Your task to perform on an android device: Open Maps and search for coffee Image 0: 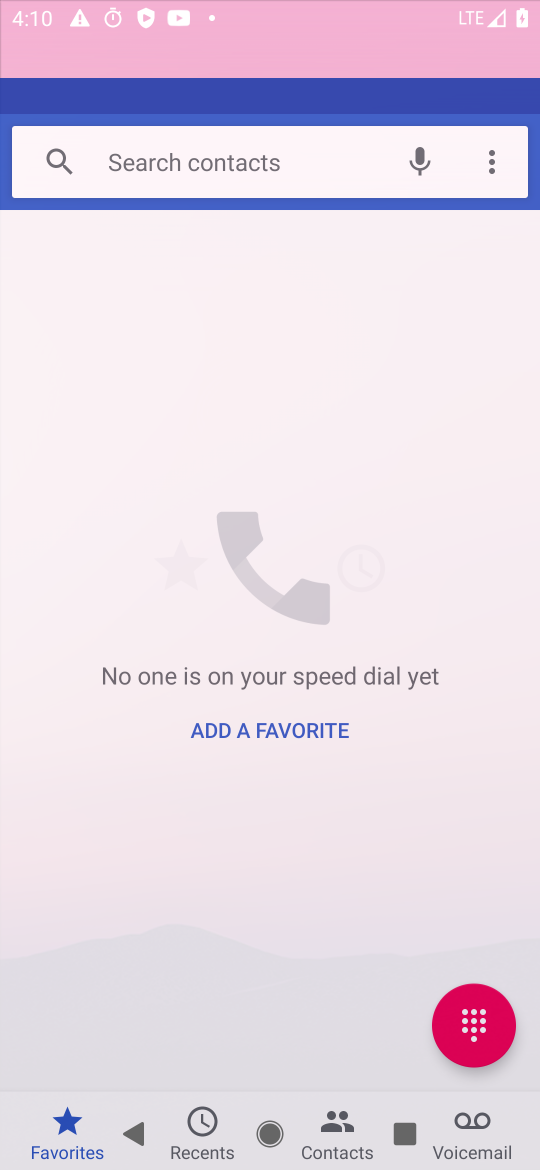
Step 0: press home button
Your task to perform on an android device: Open Maps and search for coffee Image 1: 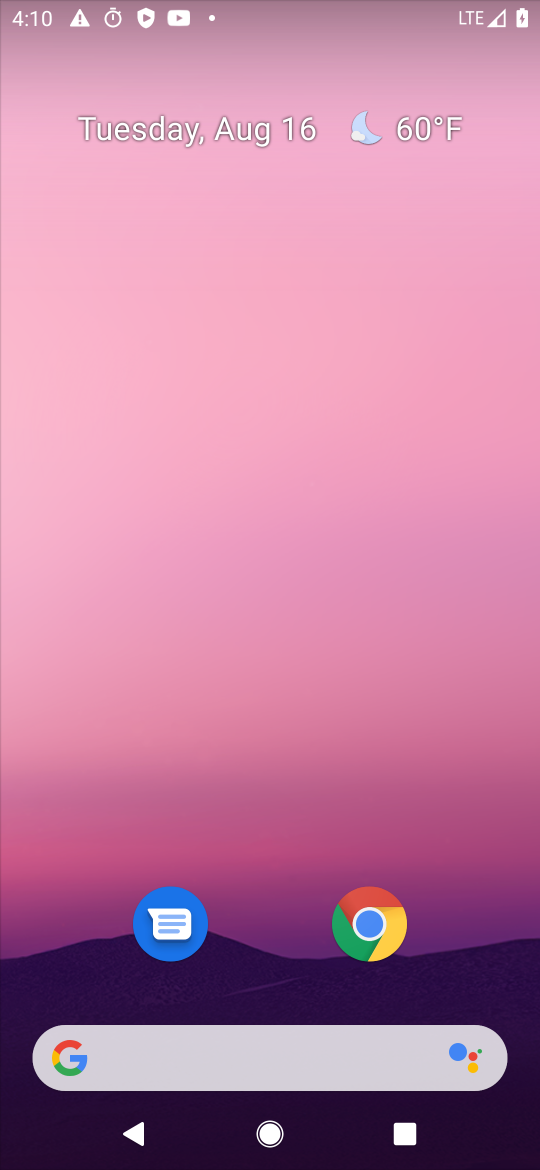
Step 1: drag from (294, 964) to (164, 79)
Your task to perform on an android device: Open Maps and search for coffee Image 2: 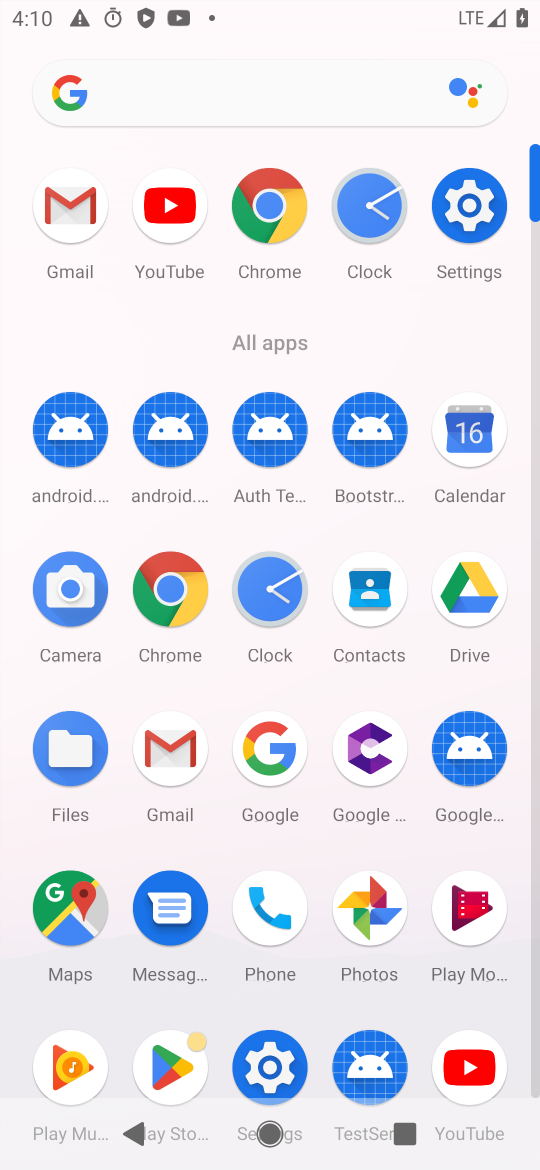
Step 2: click (97, 920)
Your task to perform on an android device: Open Maps and search for coffee Image 3: 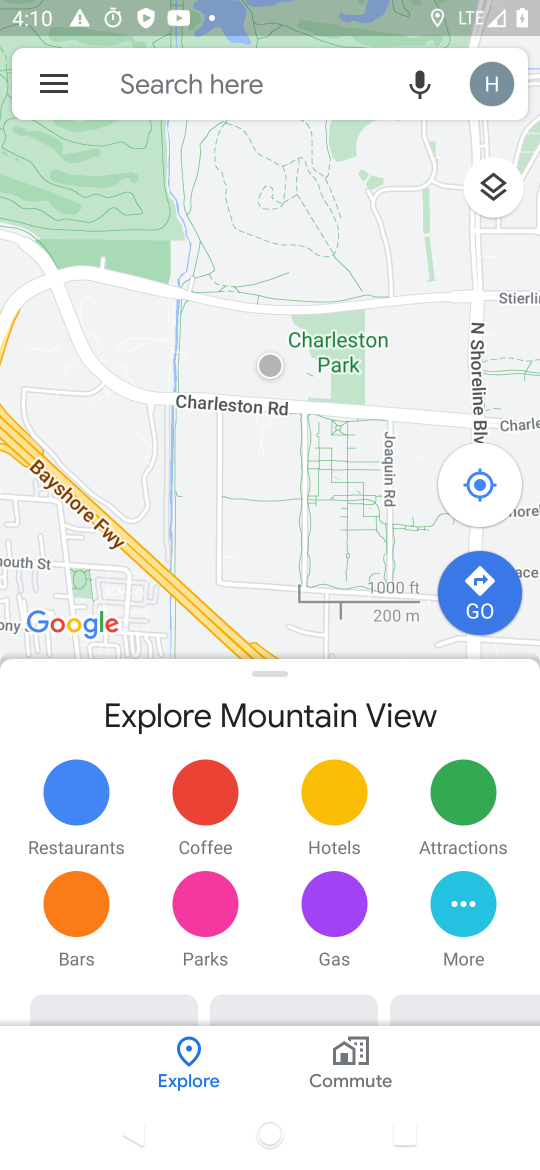
Step 3: click (211, 802)
Your task to perform on an android device: Open Maps and search for coffee Image 4: 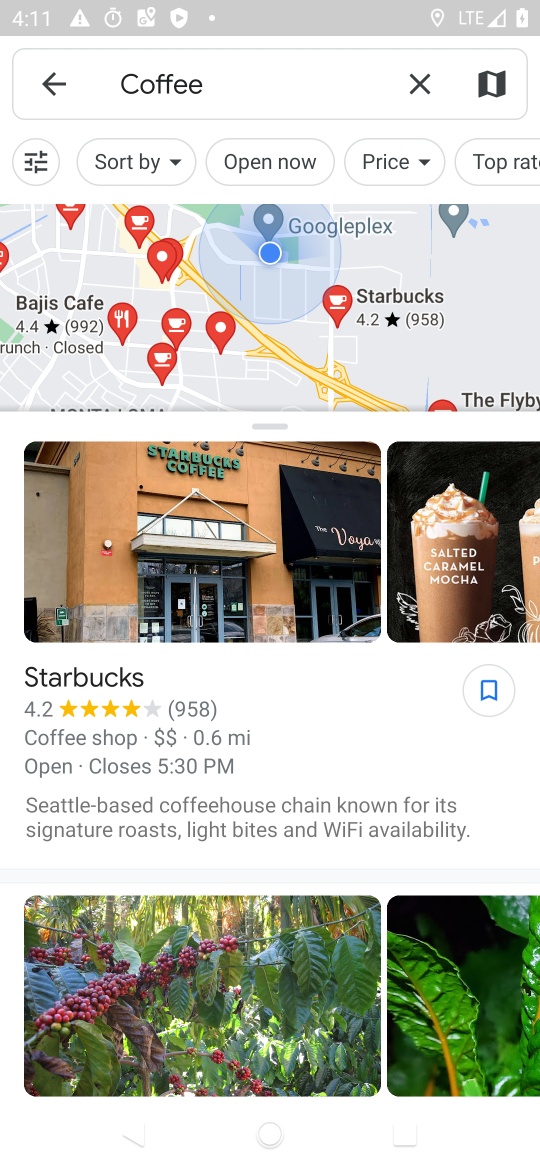
Step 4: task complete